Your task to perform on an android device: turn vacation reply on in the gmail app Image 0: 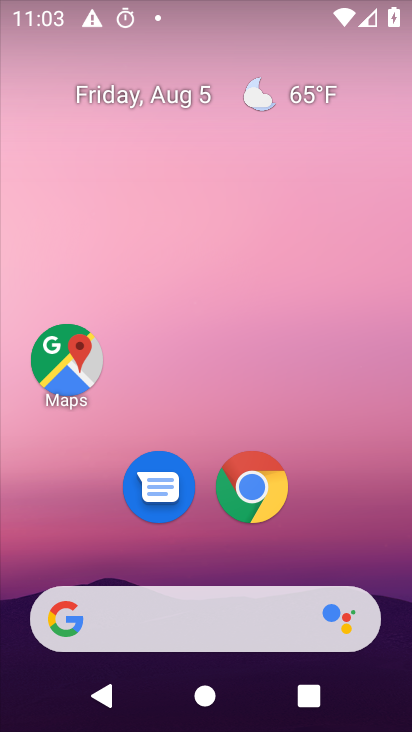
Step 0: drag from (220, 535) to (289, 68)
Your task to perform on an android device: turn vacation reply on in the gmail app Image 1: 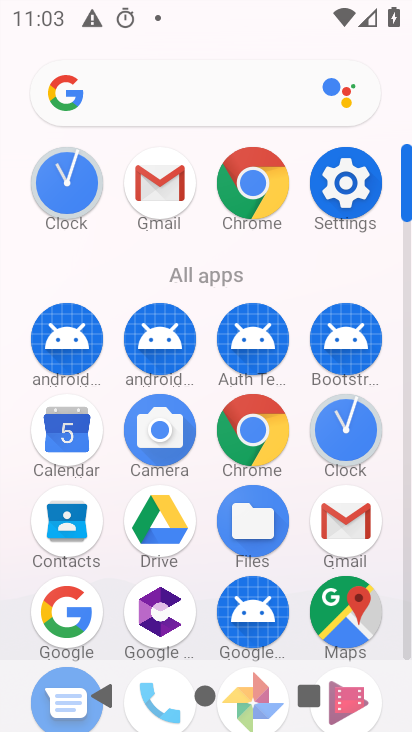
Step 1: click (169, 181)
Your task to perform on an android device: turn vacation reply on in the gmail app Image 2: 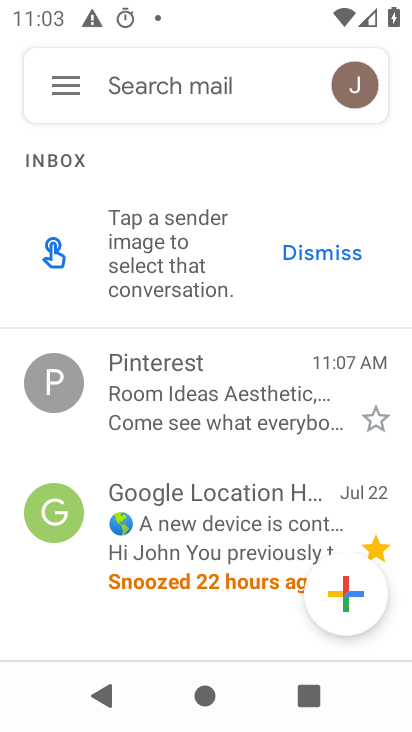
Step 2: click (78, 86)
Your task to perform on an android device: turn vacation reply on in the gmail app Image 3: 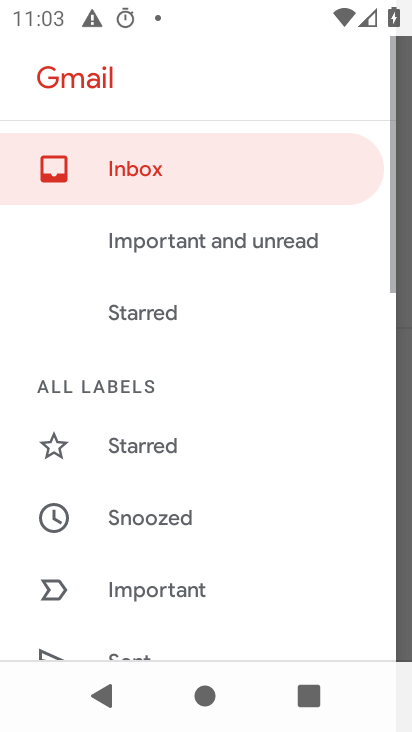
Step 3: drag from (205, 591) to (261, 74)
Your task to perform on an android device: turn vacation reply on in the gmail app Image 4: 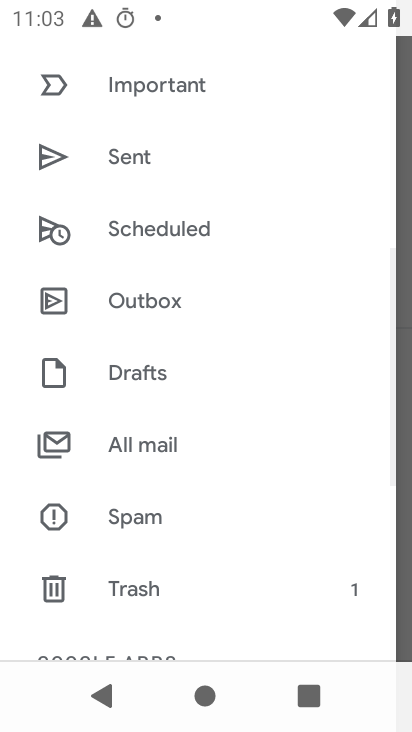
Step 4: drag from (167, 575) to (223, 13)
Your task to perform on an android device: turn vacation reply on in the gmail app Image 5: 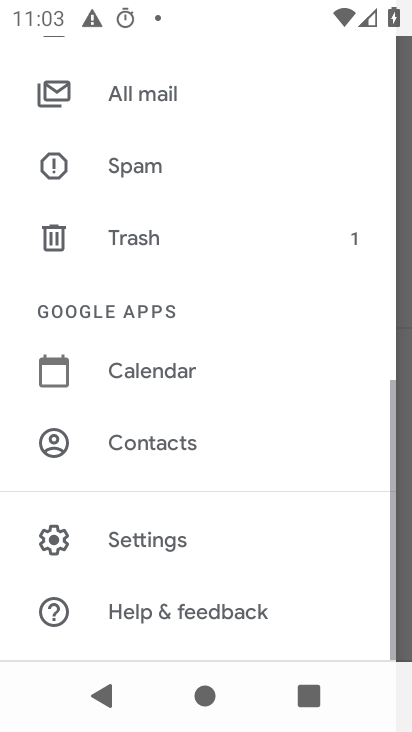
Step 5: click (162, 541)
Your task to perform on an android device: turn vacation reply on in the gmail app Image 6: 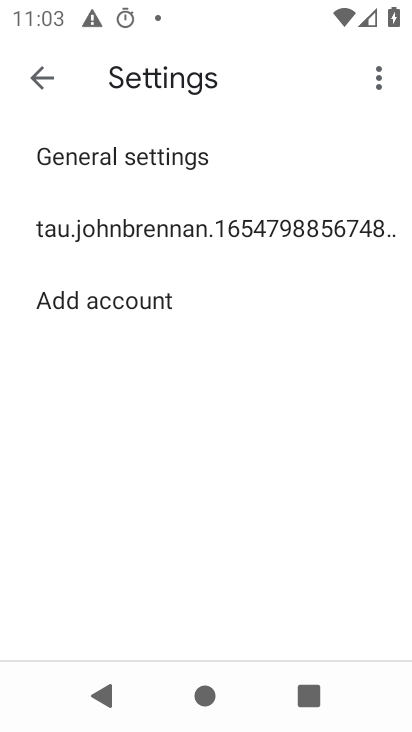
Step 6: click (171, 219)
Your task to perform on an android device: turn vacation reply on in the gmail app Image 7: 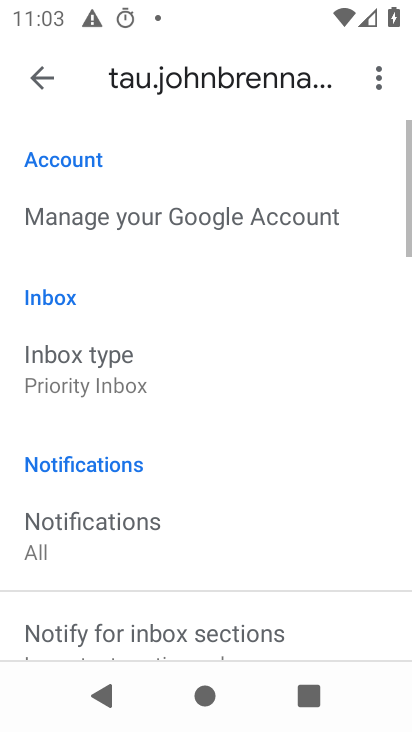
Step 7: drag from (146, 631) to (272, 46)
Your task to perform on an android device: turn vacation reply on in the gmail app Image 8: 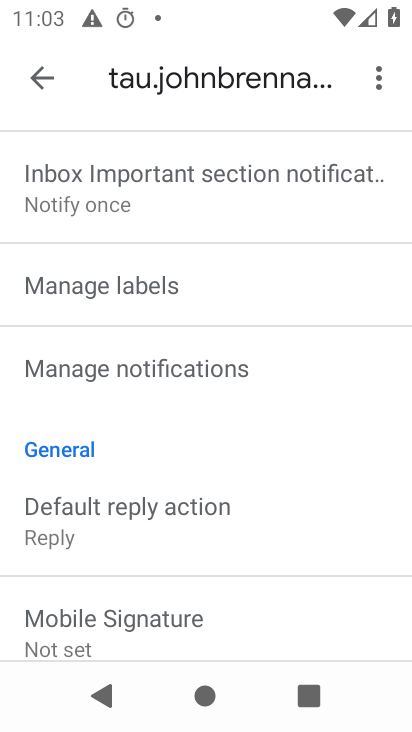
Step 8: drag from (165, 602) to (217, 205)
Your task to perform on an android device: turn vacation reply on in the gmail app Image 9: 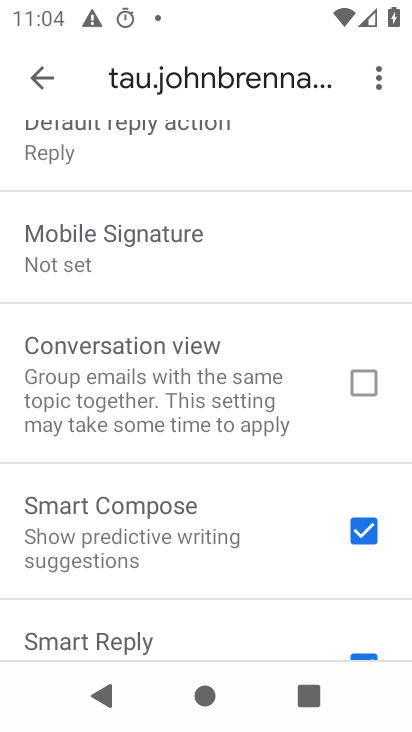
Step 9: drag from (216, 573) to (332, 182)
Your task to perform on an android device: turn vacation reply on in the gmail app Image 10: 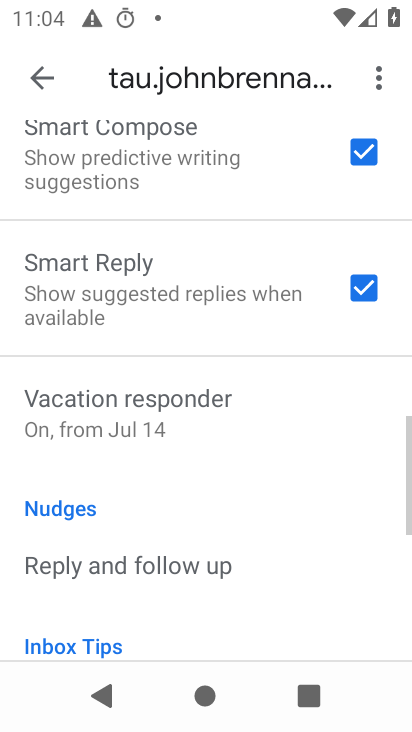
Step 10: click (165, 423)
Your task to perform on an android device: turn vacation reply on in the gmail app Image 11: 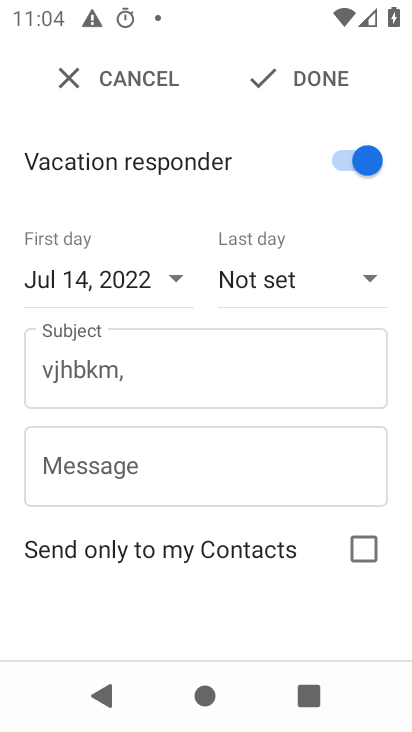
Step 11: task complete